Your task to perform on an android device: Play the last video I watched on Youtube Image 0: 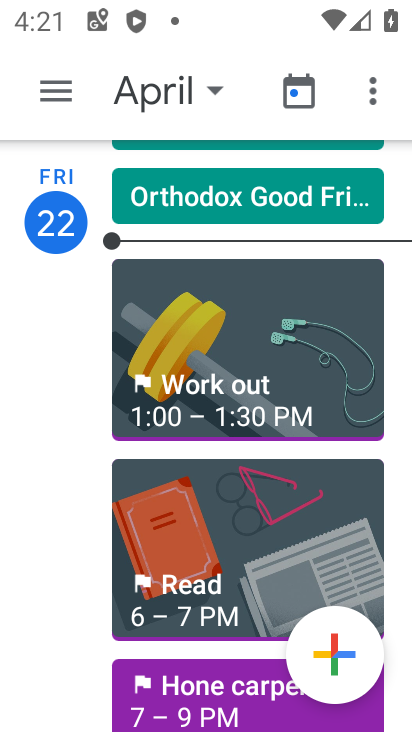
Step 0: press home button
Your task to perform on an android device: Play the last video I watched on Youtube Image 1: 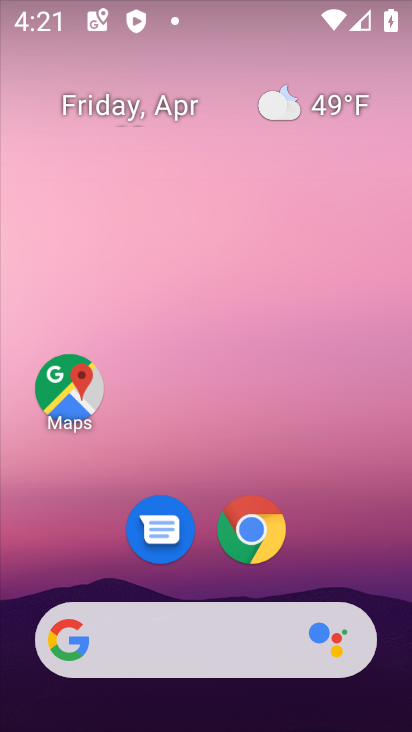
Step 1: drag from (205, 703) to (167, 186)
Your task to perform on an android device: Play the last video I watched on Youtube Image 2: 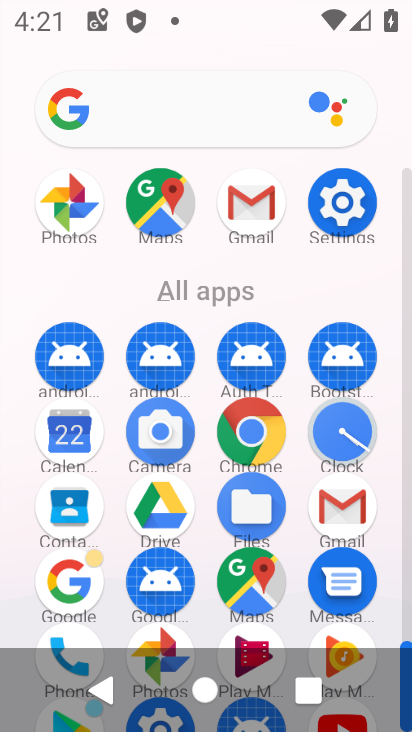
Step 2: drag from (293, 635) to (266, 253)
Your task to perform on an android device: Play the last video I watched on Youtube Image 3: 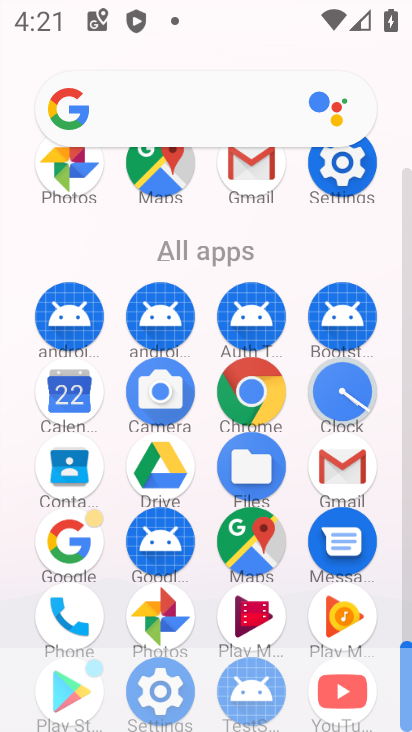
Step 3: click (337, 695)
Your task to perform on an android device: Play the last video I watched on Youtube Image 4: 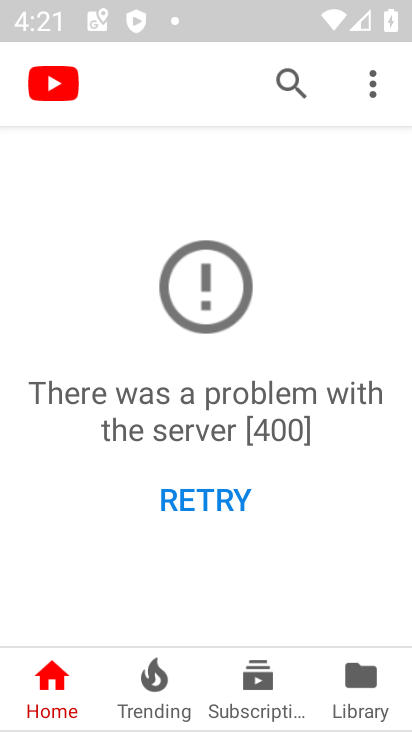
Step 4: click (364, 680)
Your task to perform on an android device: Play the last video I watched on Youtube Image 5: 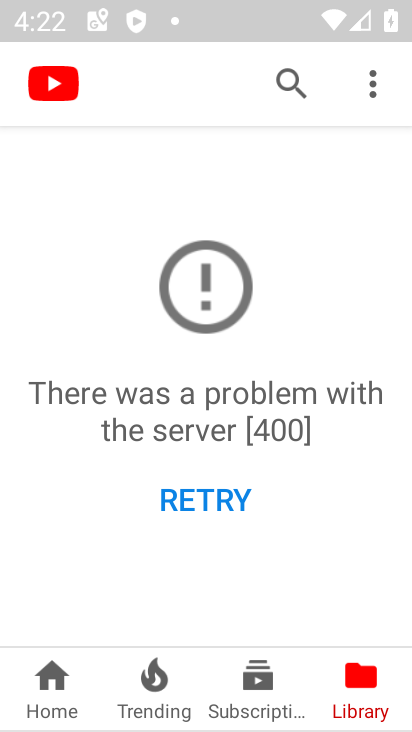
Step 5: task complete